Your task to perform on an android device: uninstall "Booking.com: Hotels and more" Image 0: 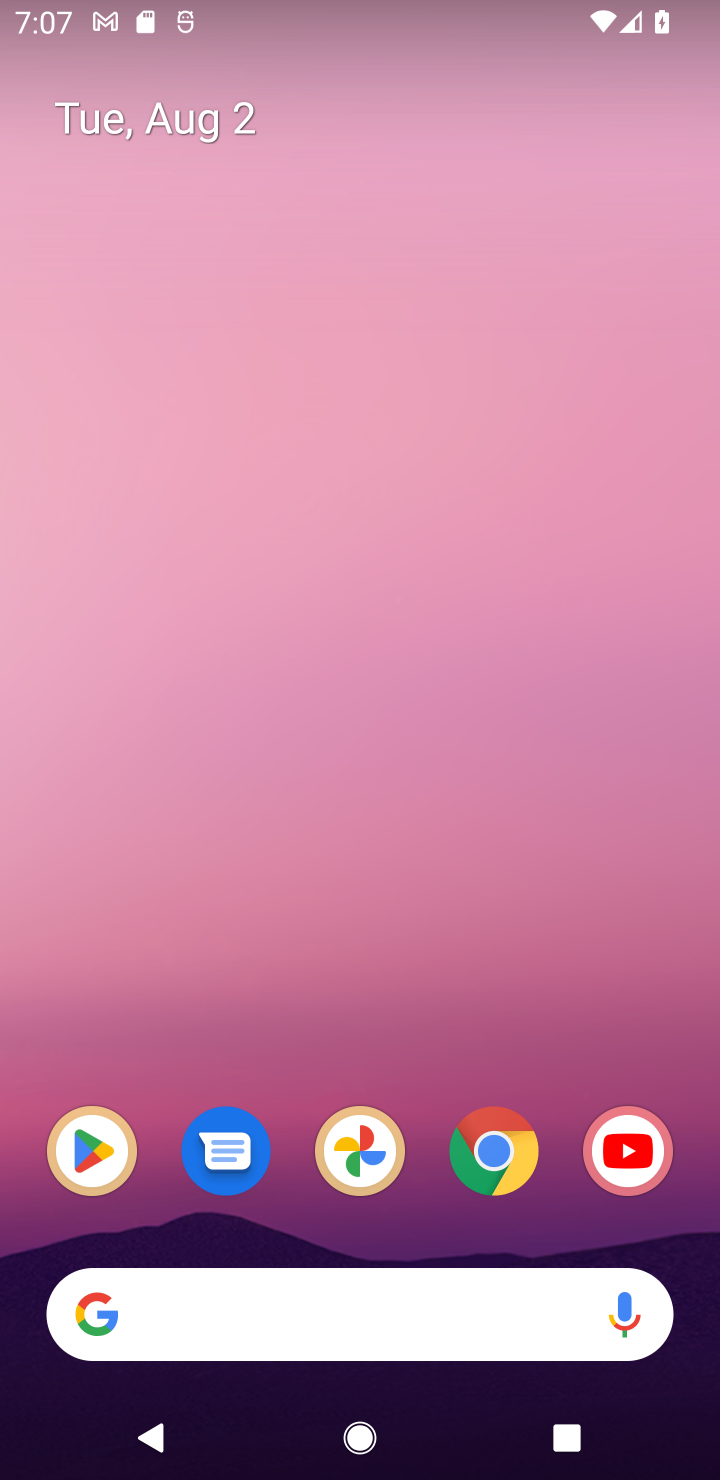
Step 0: click (94, 1165)
Your task to perform on an android device: uninstall "Booking.com: Hotels and more" Image 1: 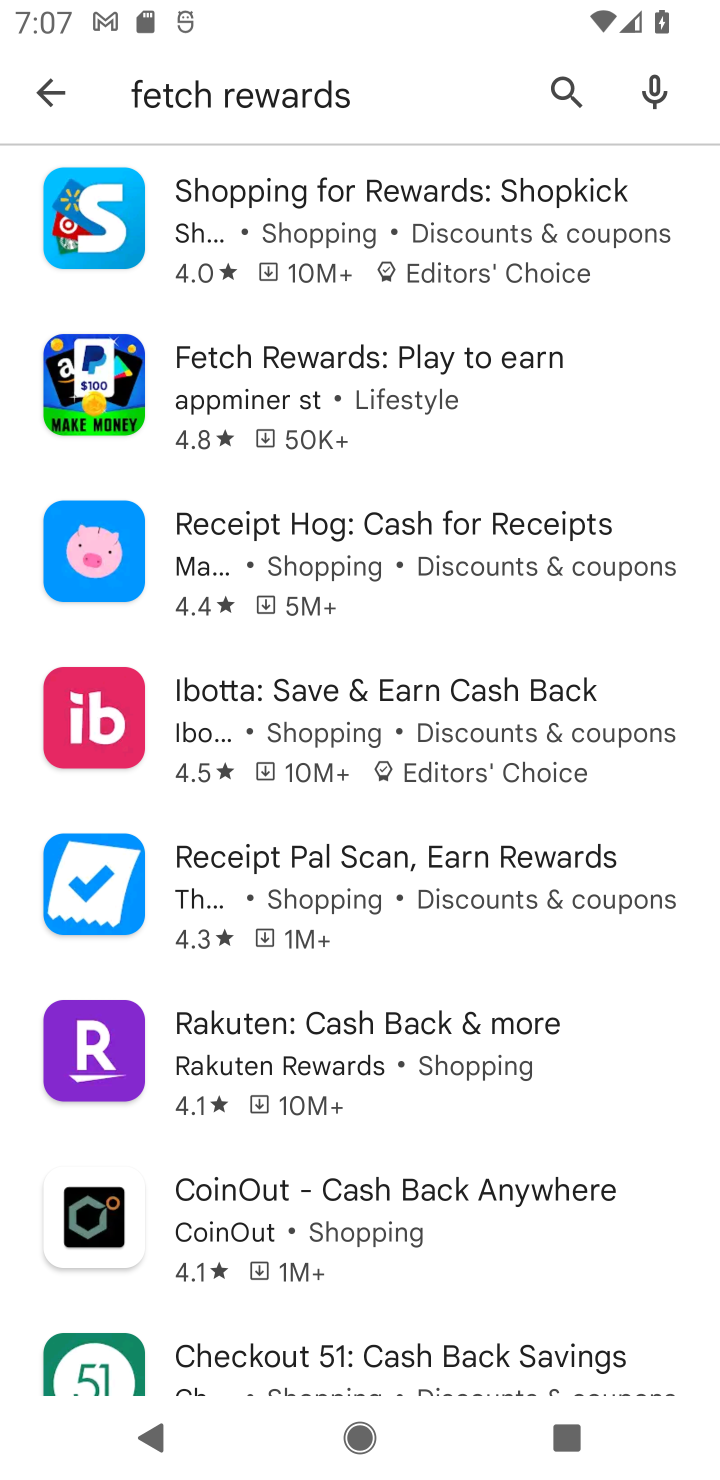
Step 1: click (560, 85)
Your task to perform on an android device: uninstall "Booking.com: Hotels and more" Image 2: 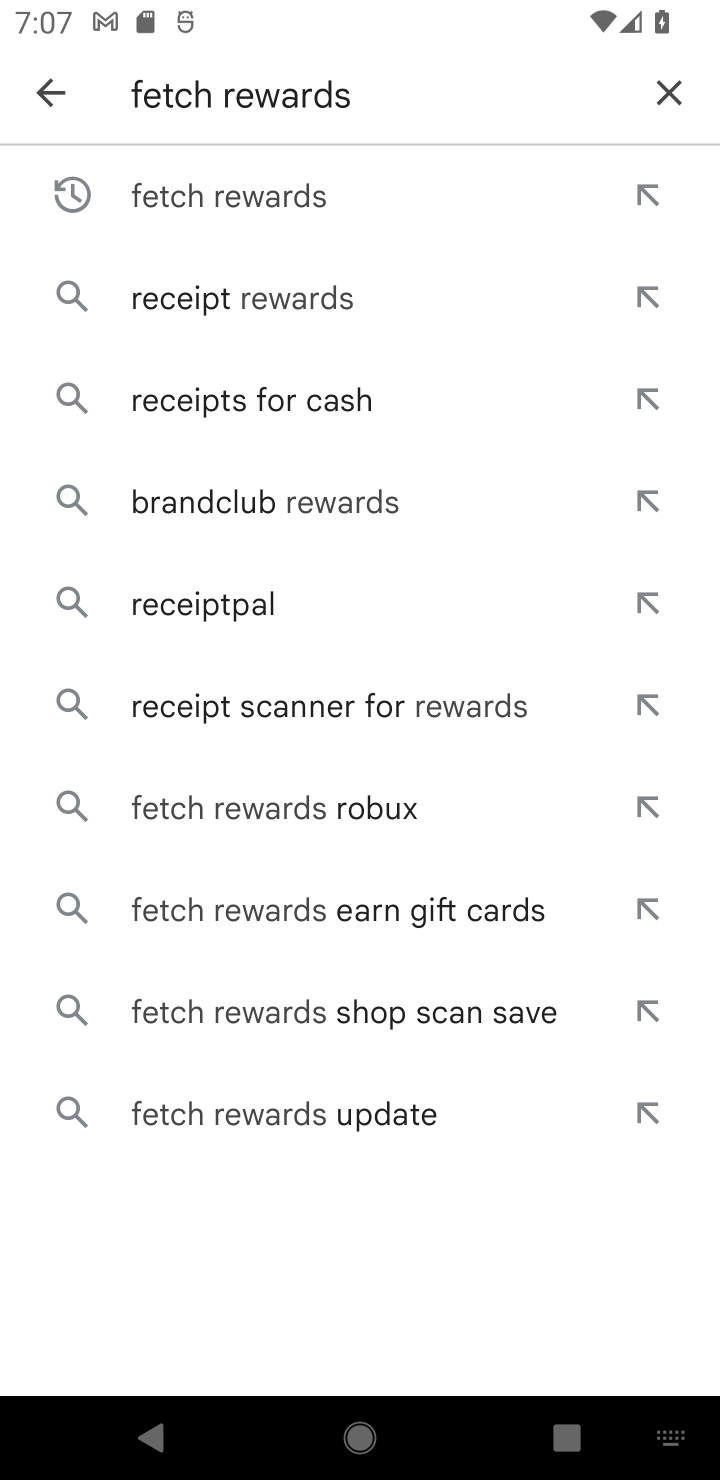
Step 2: click (658, 96)
Your task to perform on an android device: uninstall "Booking.com: Hotels and more" Image 3: 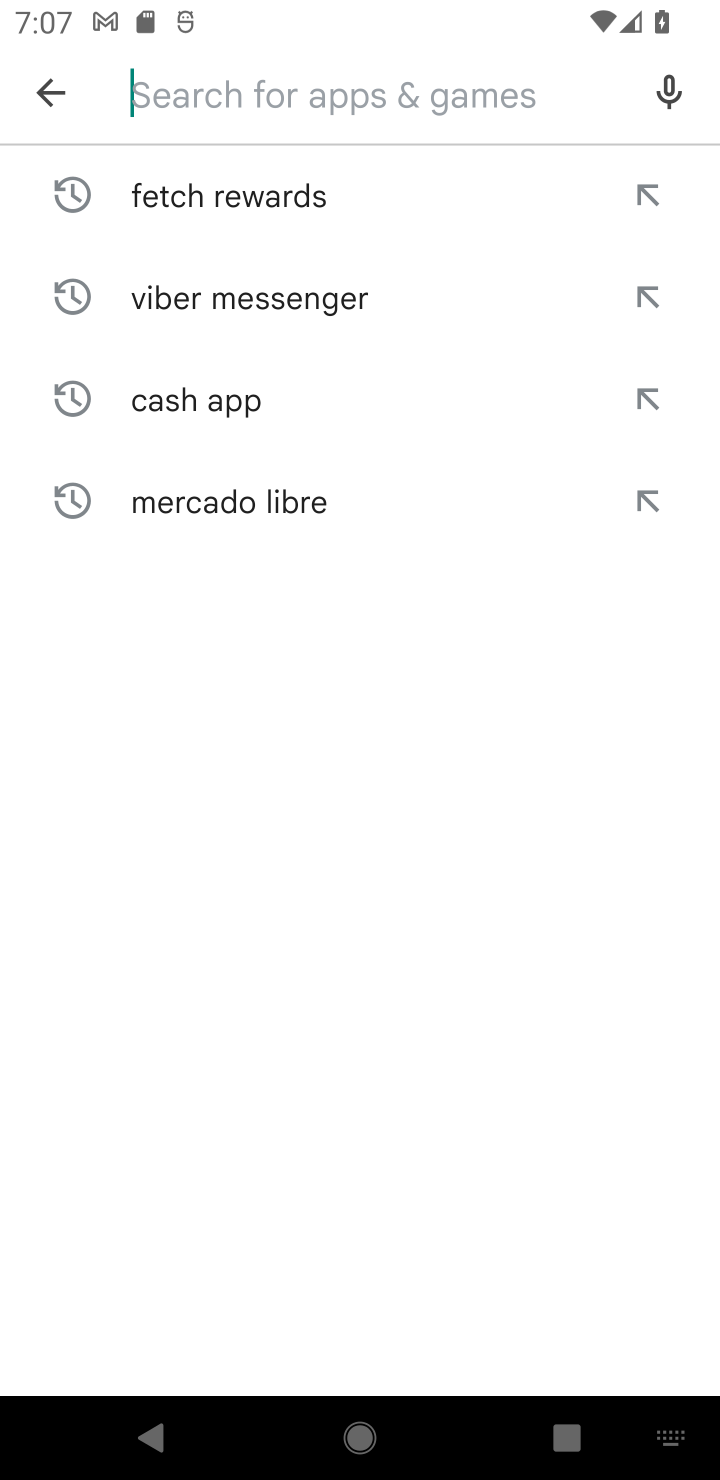
Step 3: type "Booking.com: Hotels and more"
Your task to perform on an android device: uninstall "Booking.com: Hotels and more" Image 4: 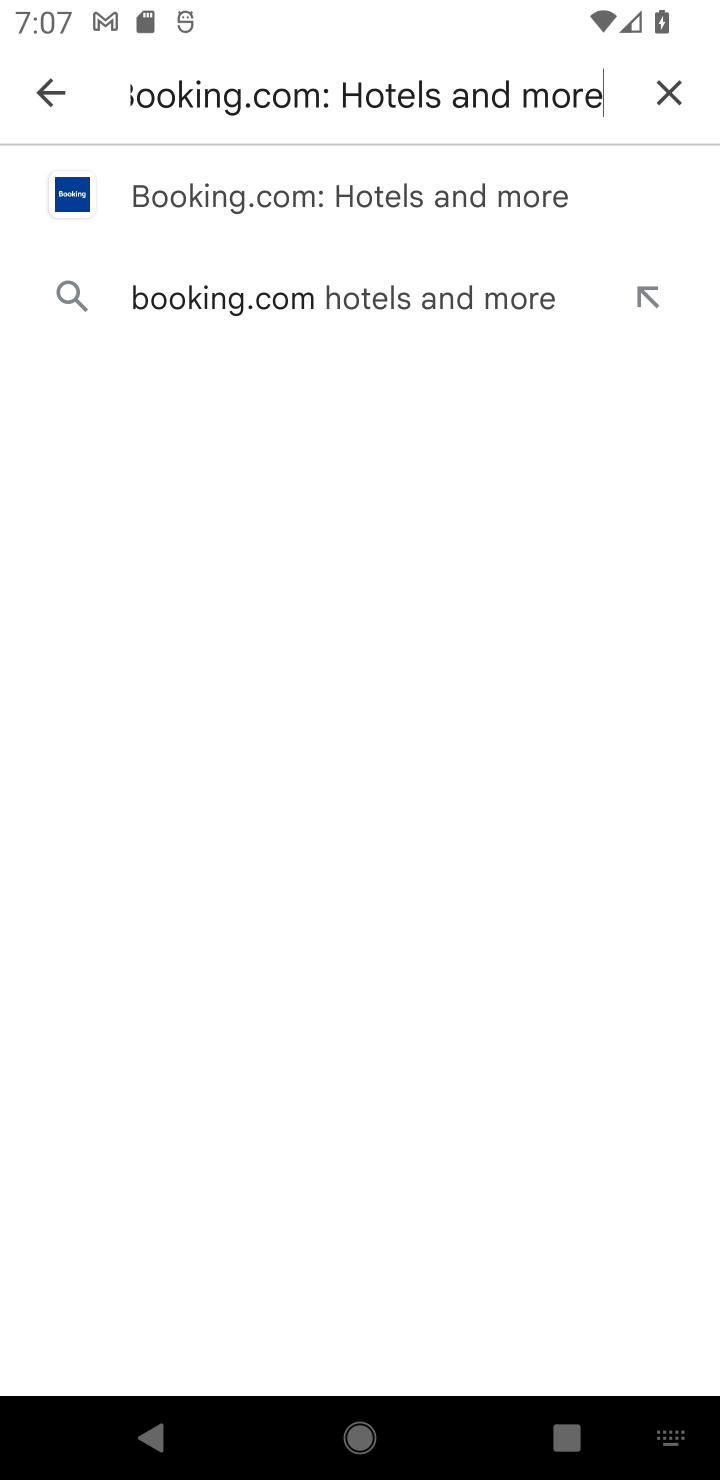
Step 4: click (171, 202)
Your task to perform on an android device: uninstall "Booking.com: Hotels and more" Image 5: 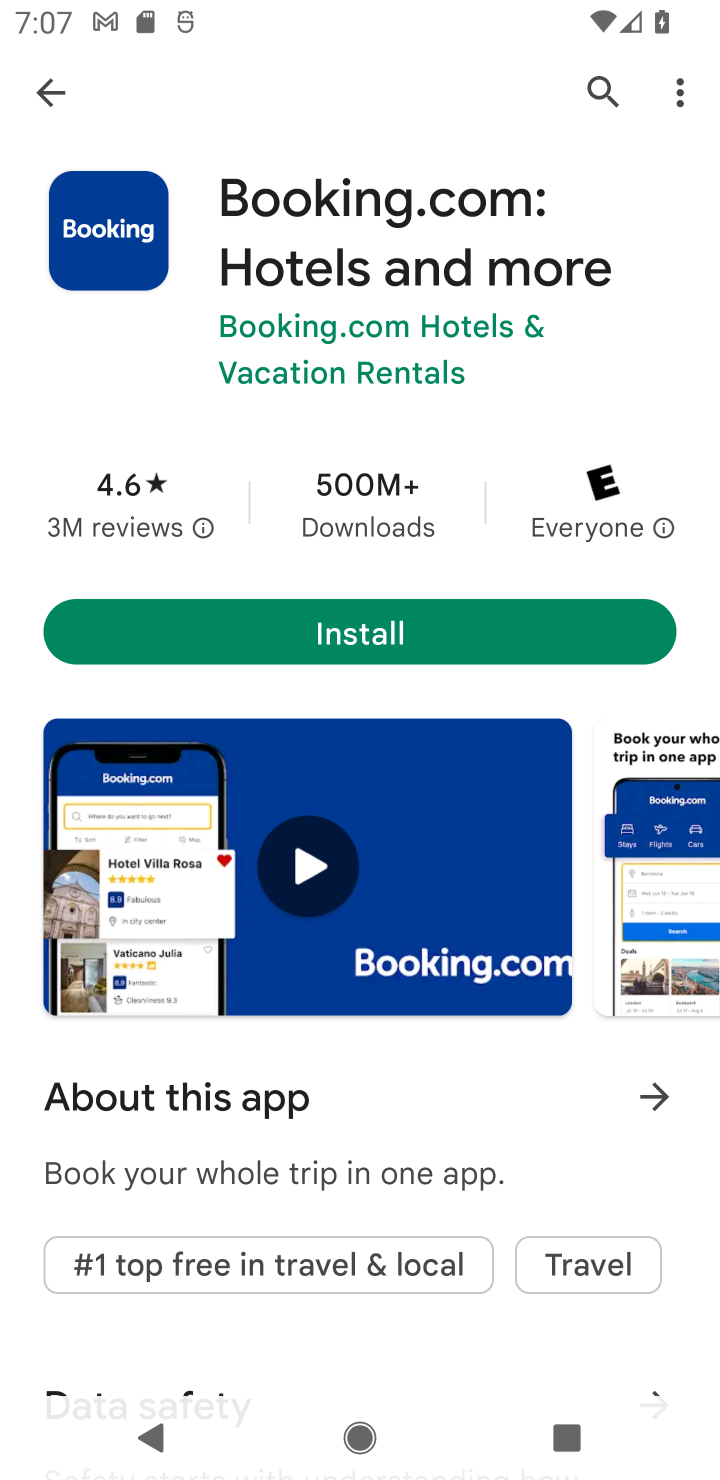
Step 5: task complete